Your task to perform on an android device: What is the recent news? Image 0: 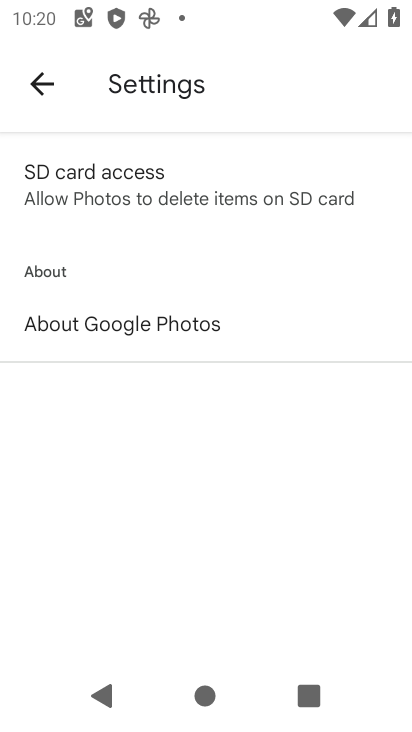
Step 0: press home button
Your task to perform on an android device: What is the recent news? Image 1: 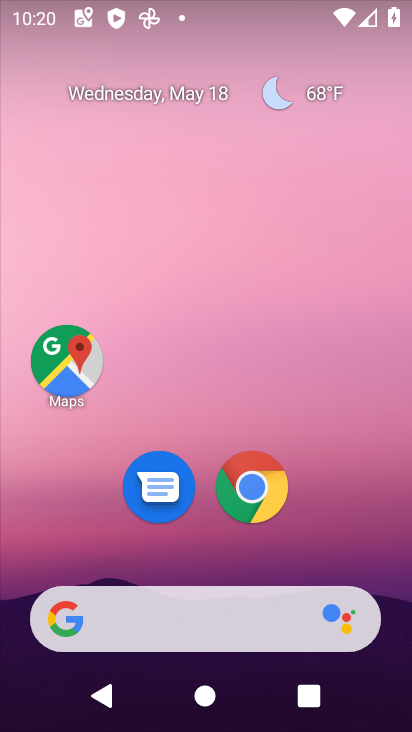
Step 1: drag from (352, 534) to (369, 246)
Your task to perform on an android device: What is the recent news? Image 2: 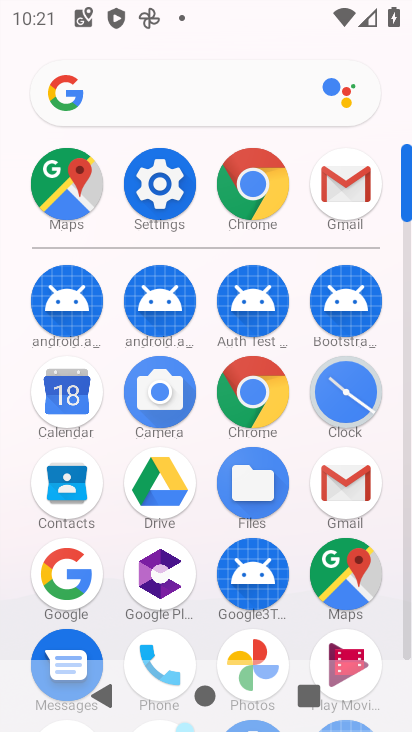
Step 2: click (240, 400)
Your task to perform on an android device: What is the recent news? Image 3: 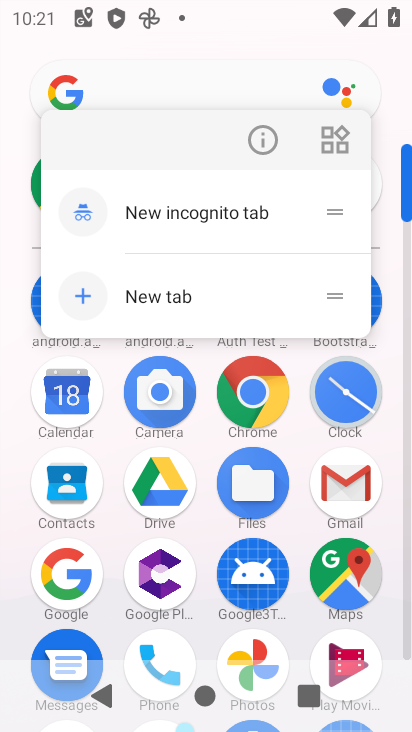
Step 3: click (241, 402)
Your task to perform on an android device: What is the recent news? Image 4: 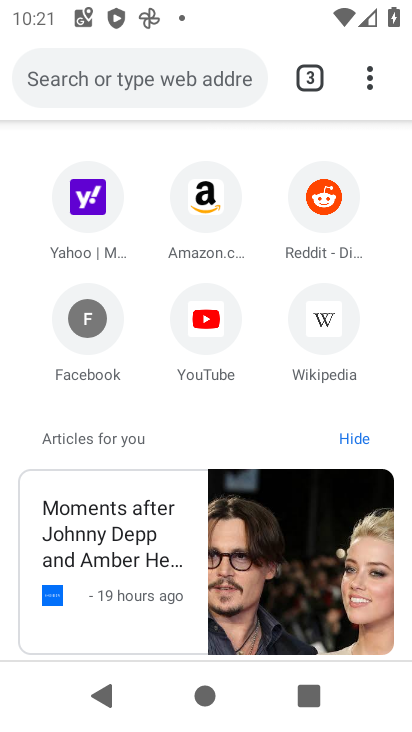
Step 4: click (154, 72)
Your task to perform on an android device: What is the recent news? Image 5: 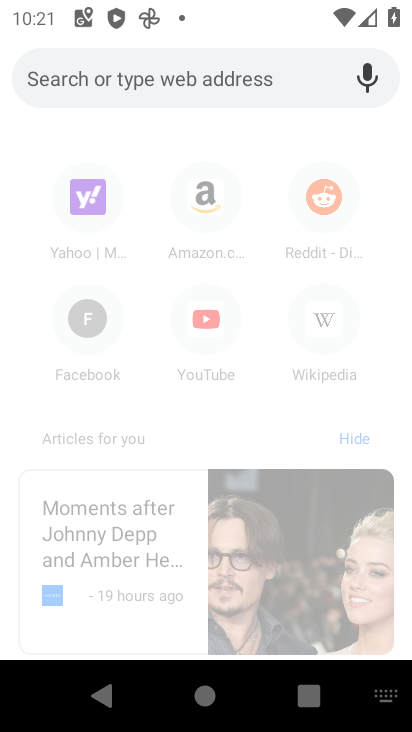
Step 5: type "what is the recent news"
Your task to perform on an android device: What is the recent news? Image 6: 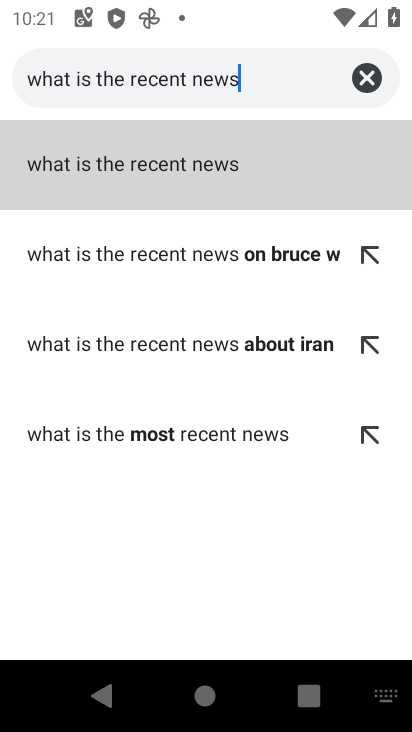
Step 6: click (172, 181)
Your task to perform on an android device: What is the recent news? Image 7: 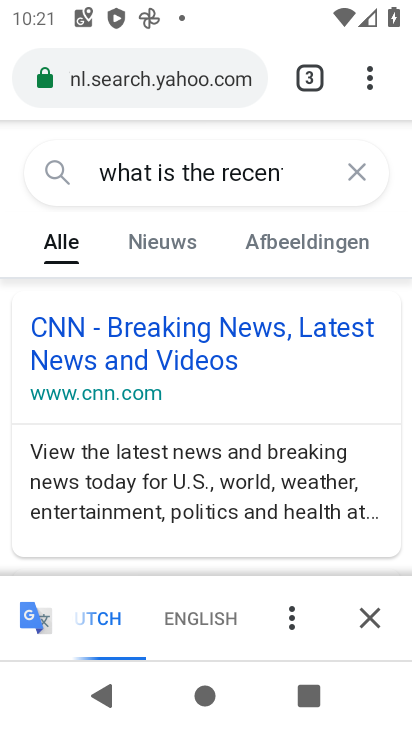
Step 7: click (110, 334)
Your task to perform on an android device: What is the recent news? Image 8: 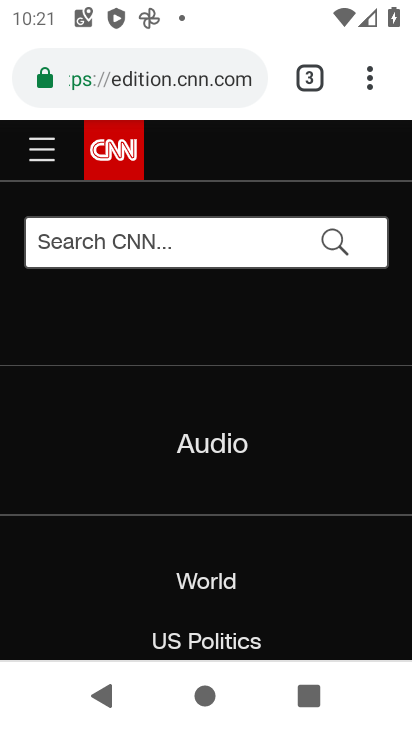
Step 8: task complete